Your task to perform on an android device: Open sound settings Image 0: 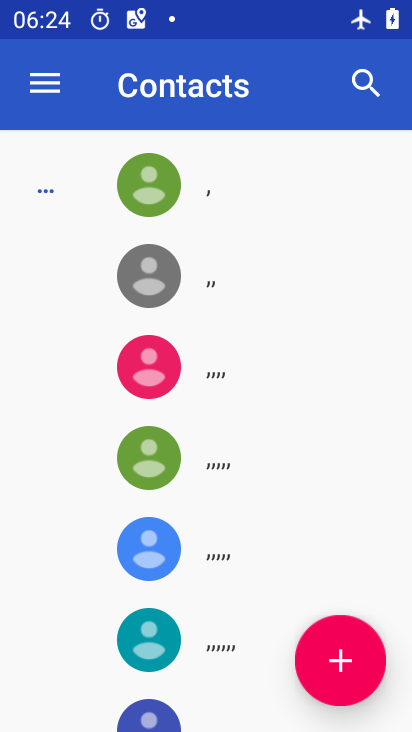
Step 0: press home button
Your task to perform on an android device: Open sound settings Image 1: 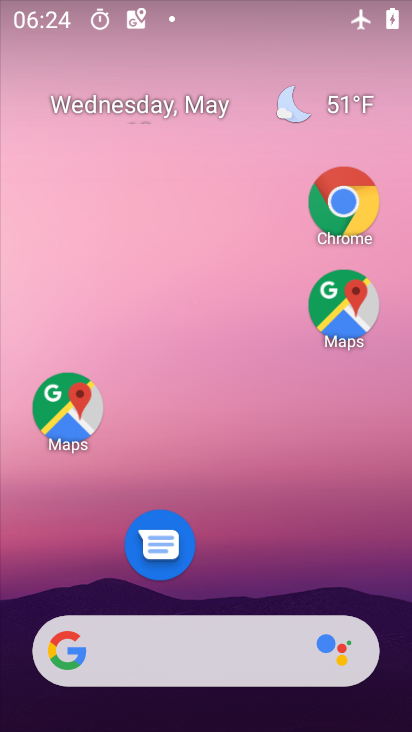
Step 1: click (285, 153)
Your task to perform on an android device: Open sound settings Image 2: 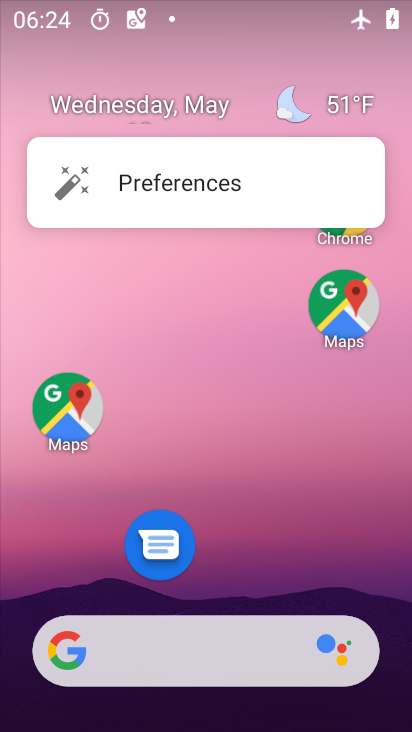
Step 2: drag from (253, 84) to (252, 49)
Your task to perform on an android device: Open sound settings Image 3: 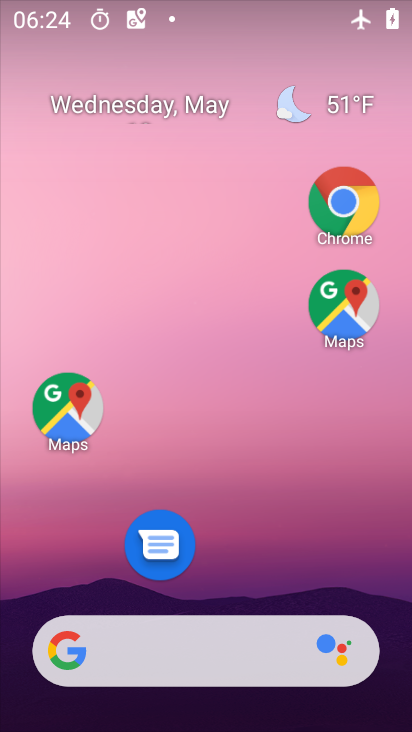
Step 3: drag from (231, 346) to (249, 117)
Your task to perform on an android device: Open sound settings Image 4: 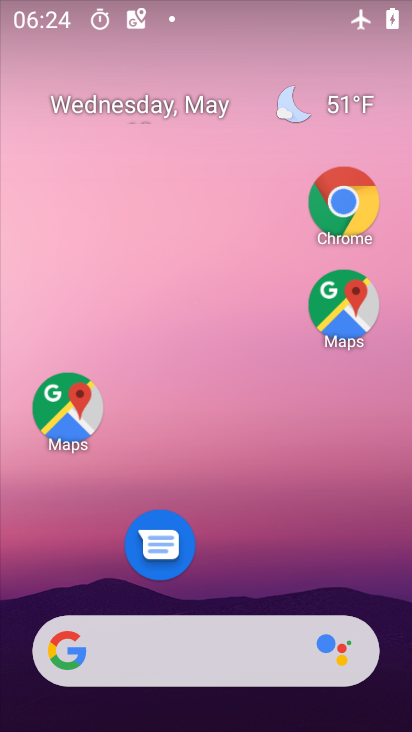
Step 4: click (216, 37)
Your task to perform on an android device: Open sound settings Image 5: 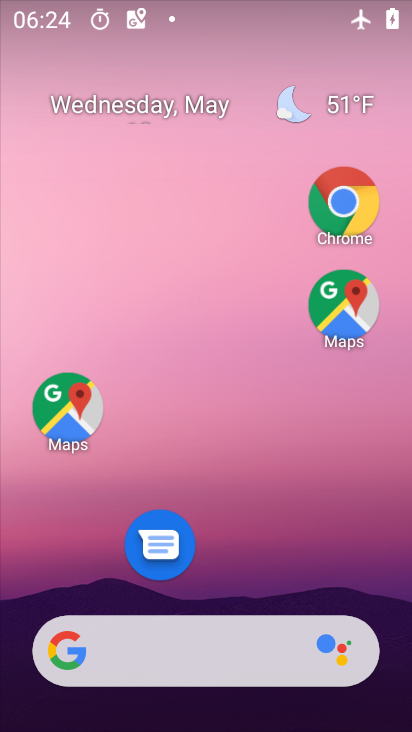
Step 5: click (239, 553)
Your task to perform on an android device: Open sound settings Image 6: 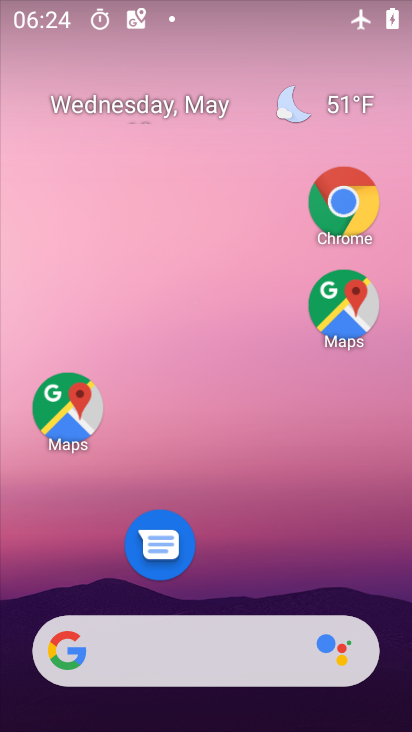
Step 6: drag from (242, 216) to (242, 7)
Your task to perform on an android device: Open sound settings Image 7: 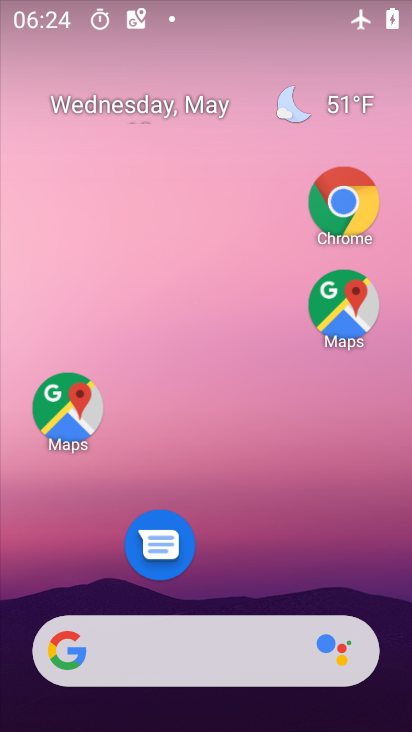
Step 7: drag from (237, 542) to (279, 67)
Your task to perform on an android device: Open sound settings Image 8: 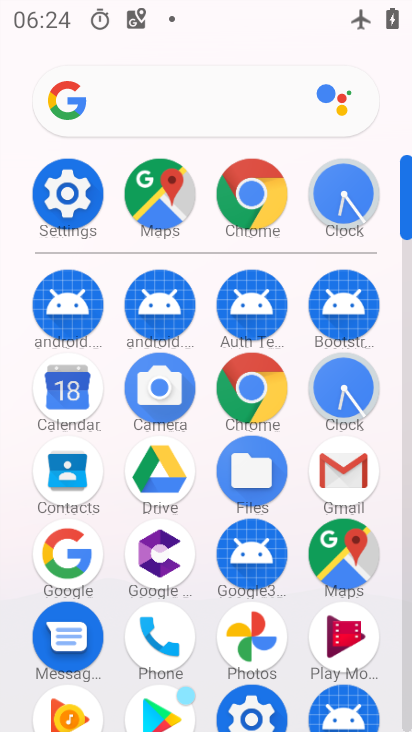
Step 8: click (65, 202)
Your task to perform on an android device: Open sound settings Image 9: 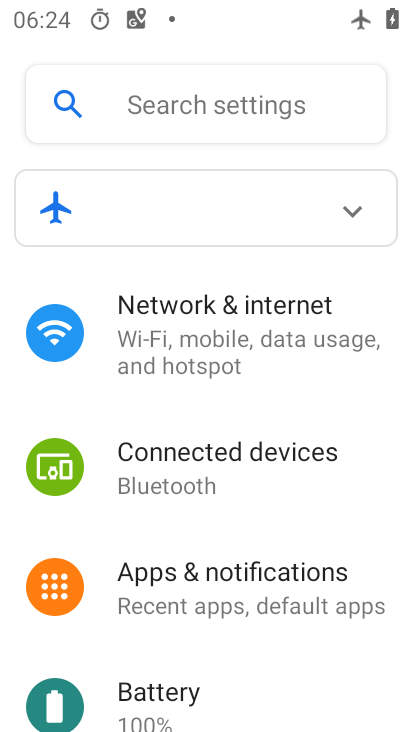
Step 9: click (234, 183)
Your task to perform on an android device: Open sound settings Image 10: 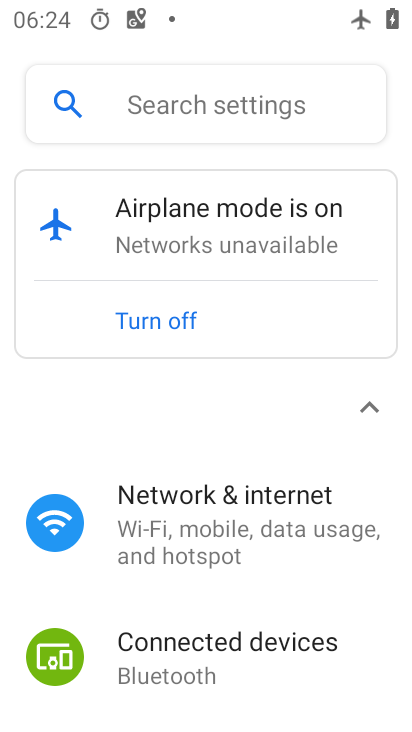
Step 10: drag from (143, 604) to (211, 175)
Your task to perform on an android device: Open sound settings Image 11: 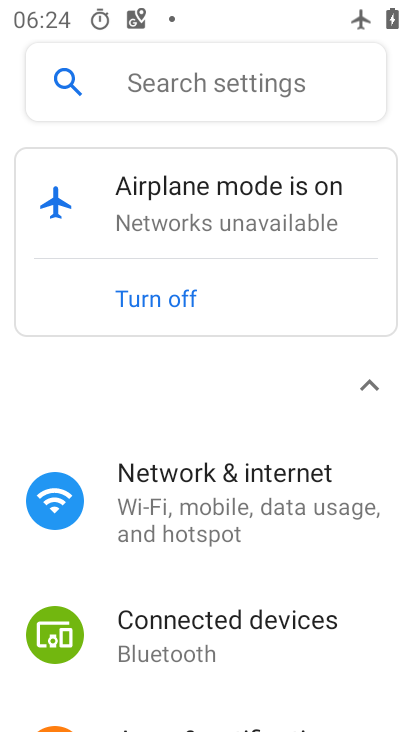
Step 11: drag from (160, 643) to (237, 31)
Your task to perform on an android device: Open sound settings Image 12: 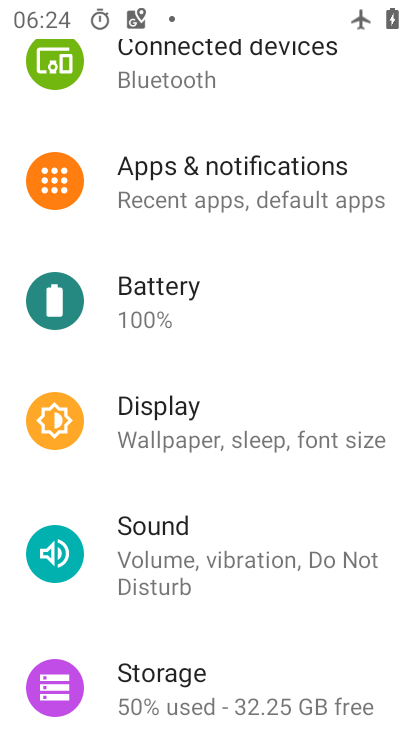
Step 12: click (176, 542)
Your task to perform on an android device: Open sound settings Image 13: 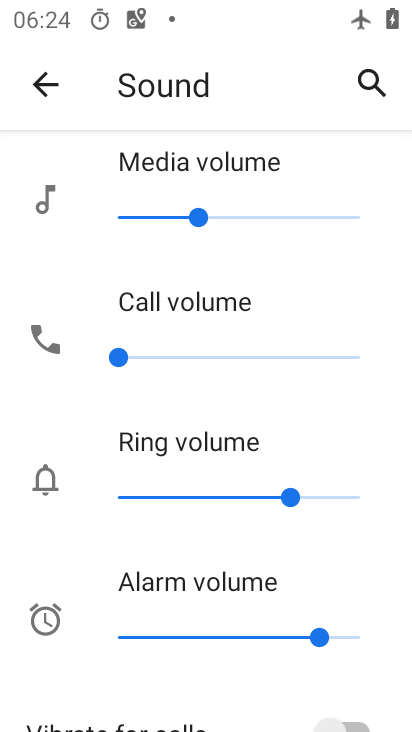
Step 13: task complete